Your task to perform on an android device: turn on airplane mode Image 0: 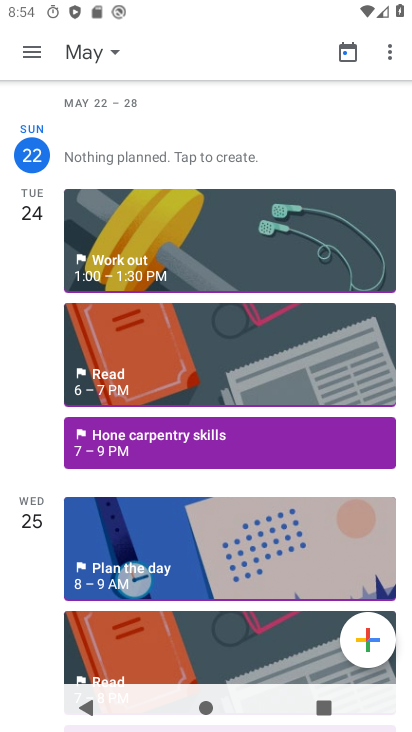
Step 0: press home button
Your task to perform on an android device: turn on airplane mode Image 1: 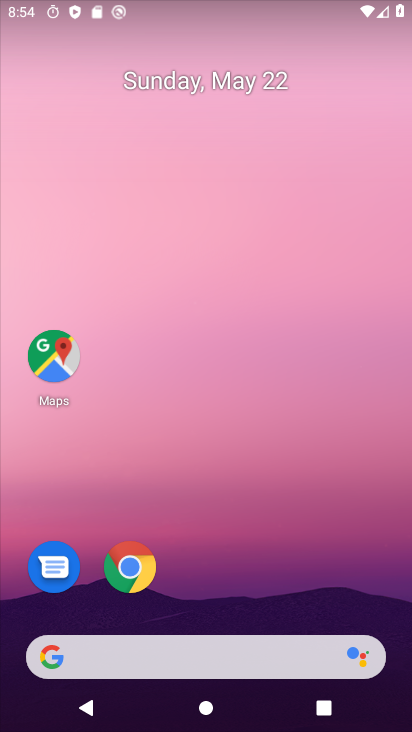
Step 1: drag from (201, 537) to (301, 9)
Your task to perform on an android device: turn on airplane mode Image 2: 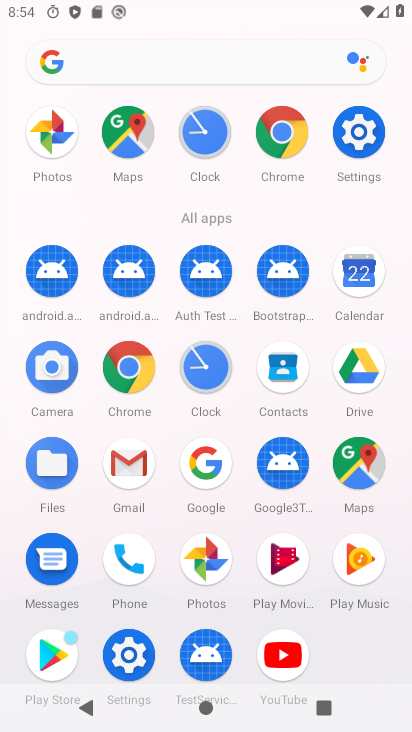
Step 2: click (379, 130)
Your task to perform on an android device: turn on airplane mode Image 3: 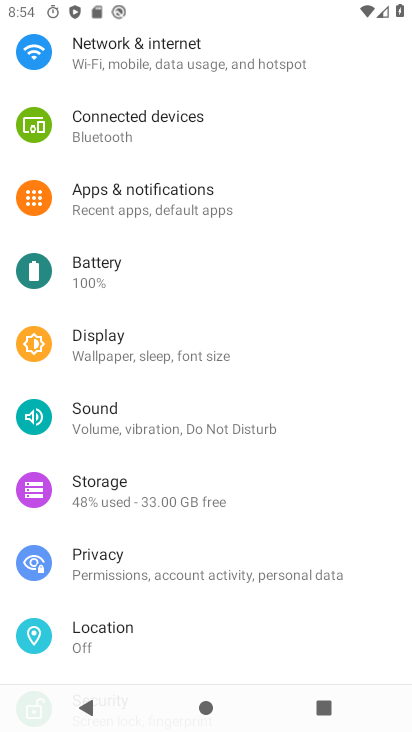
Step 3: drag from (234, 125) to (202, 534)
Your task to perform on an android device: turn on airplane mode Image 4: 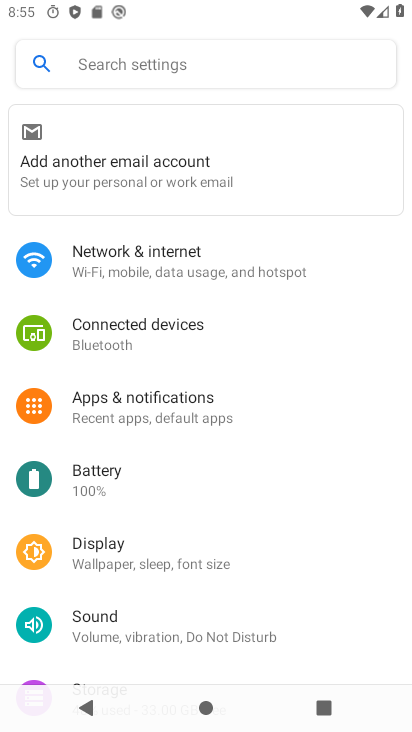
Step 4: click (189, 267)
Your task to perform on an android device: turn on airplane mode Image 5: 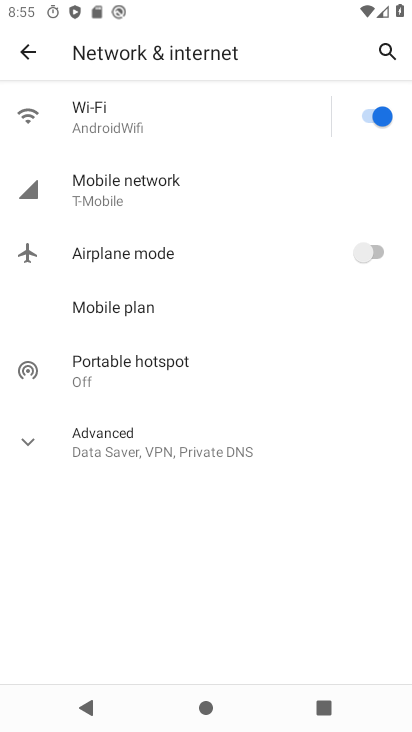
Step 5: click (374, 250)
Your task to perform on an android device: turn on airplane mode Image 6: 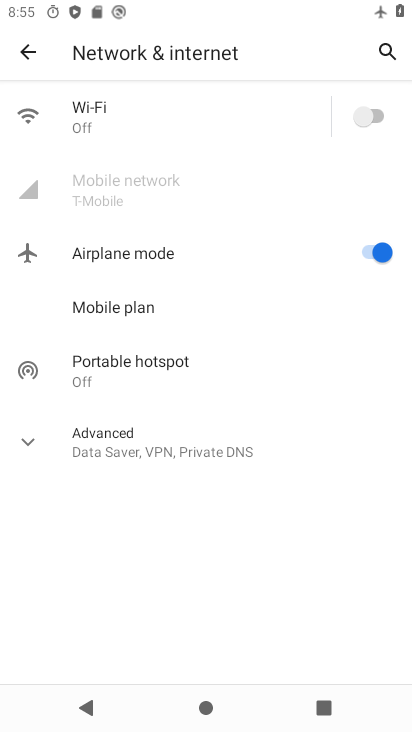
Step 6: task complete